Your task to perform on an android device: Go to Reddit.com Image 0: 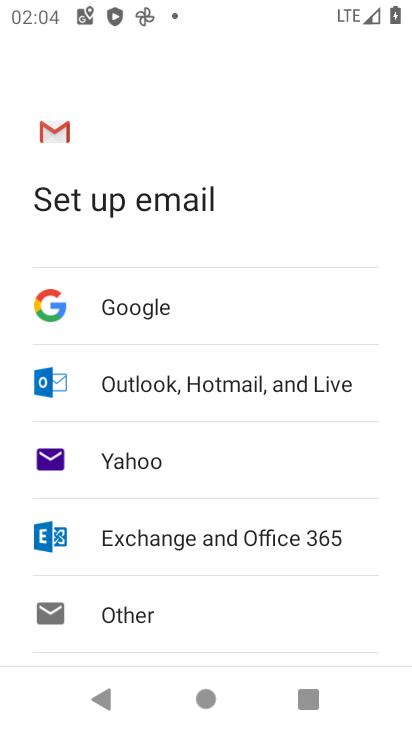
Step 0: press home button
Your task to perform on an android device: Go to Reddit.com Image 1: 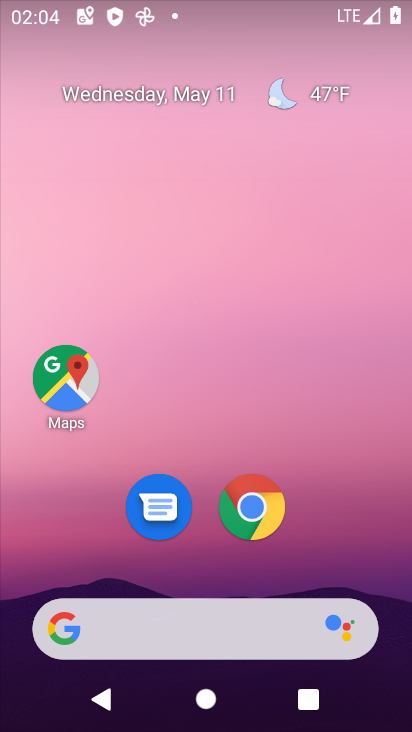
Step 1: click (196, 631)
Your task to perform on an android device: Go to Reddit.com Image 2: 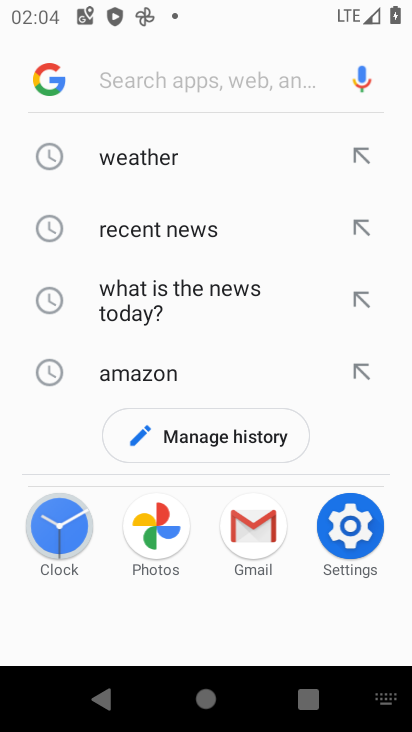
Step 2: click (136, 84)
Your task to perform on an android device: Go to Reddit.com Image 3: 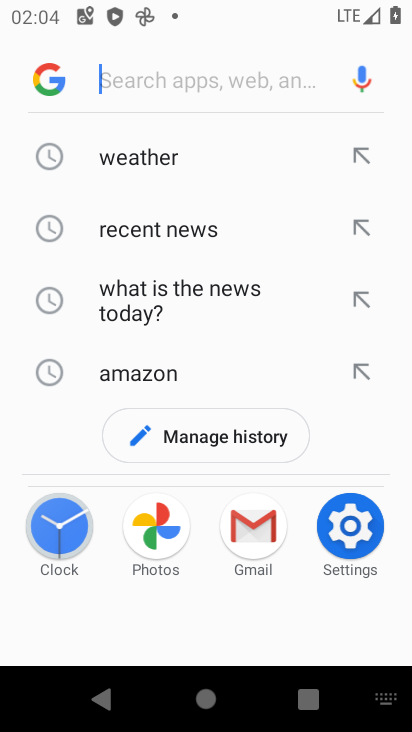
Step 3: type "reddit.com"
Your task to perform on an android device: Go to Reddit.com Image 4: 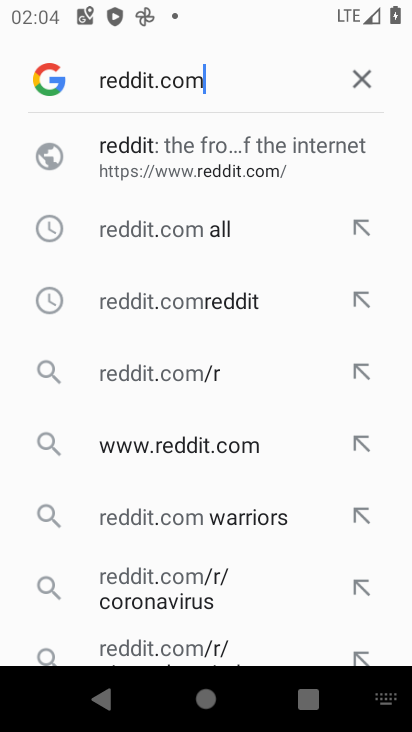
Step 4: click (169, 222)
Your task to perform on an android device: Go to Reddit.com Image 5: 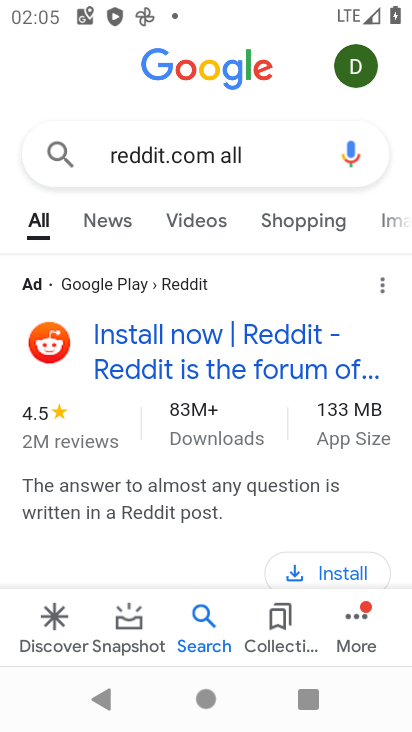
Step 5: task complete